Your task to perform on an android device: empty trash in the gmail app Image 0: 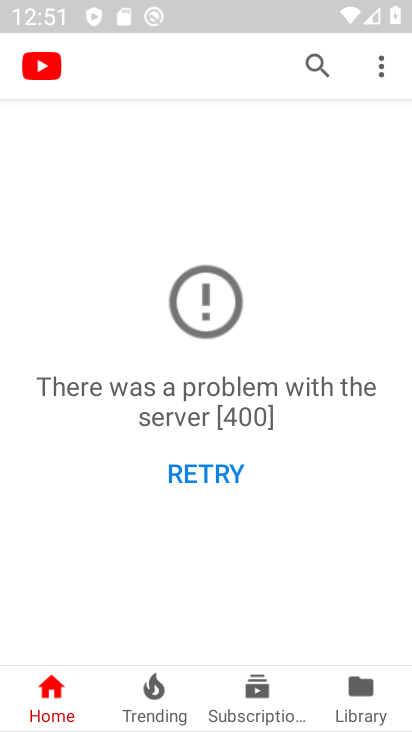
Step 0: press home button
Your task to perform on an android device: empty trash in the gmail app Image 1: 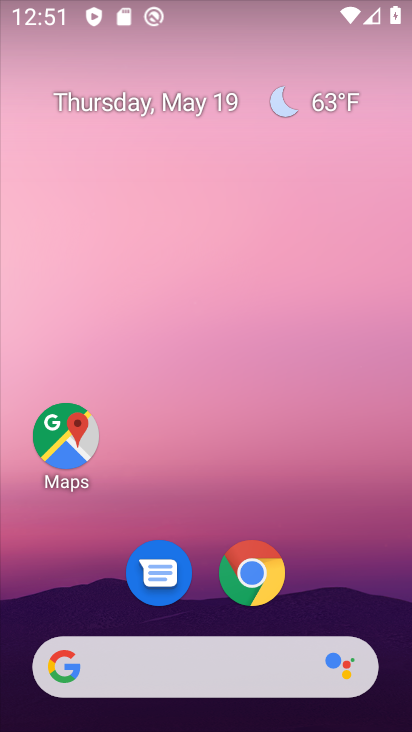
Step 1: drag from (349, 555) to (351, 280)
Your task to perform on an android device: empty trash in the gmail app Image 2: 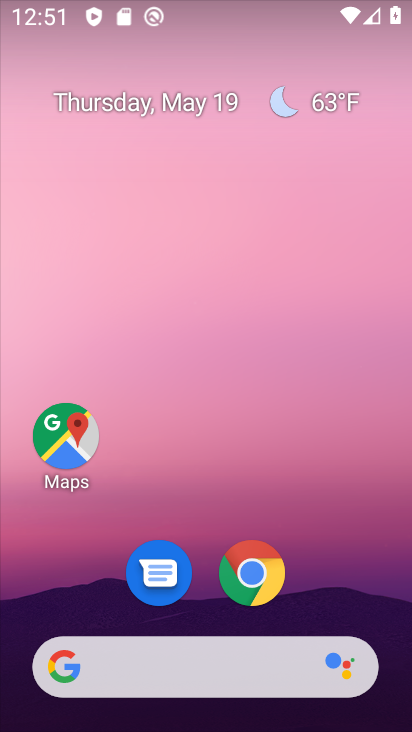
Step 2: drag from (321, 517) to (311, 289)
Your task to perform on an android device: empty trash in the gmail app Image 3: 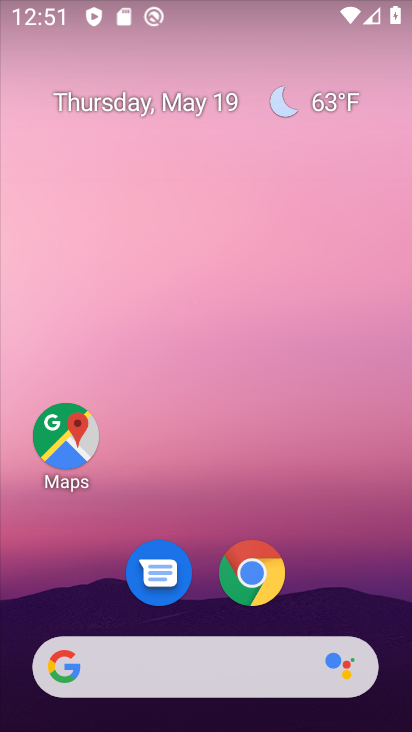
Step 3: click (247, 572)
Your task to perform on an android device: empty trash in the gmail app Image 4: 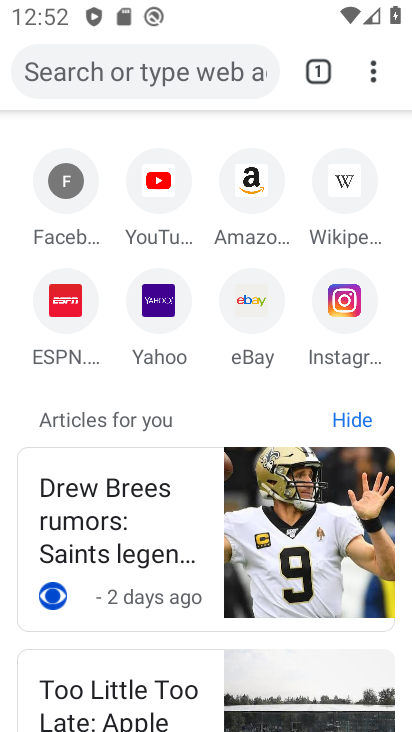
Step 4: click (367, 68)
Your task to perform on an android device: empty trash in the gmail app Image 5: 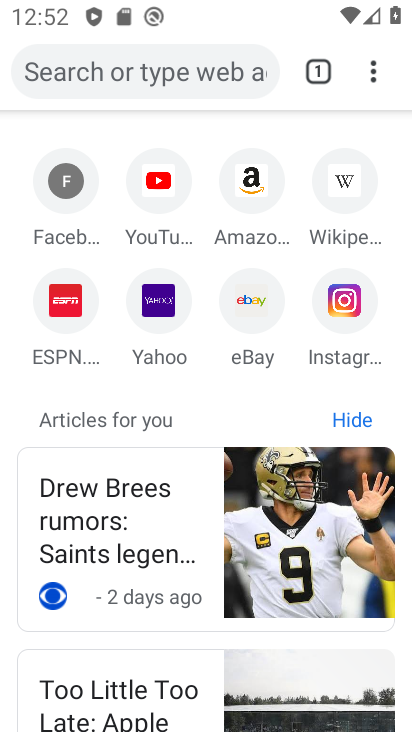
Step 5: click (367, 68)
Your task to perform on an android device: empty trash in the gmail app Image 6: 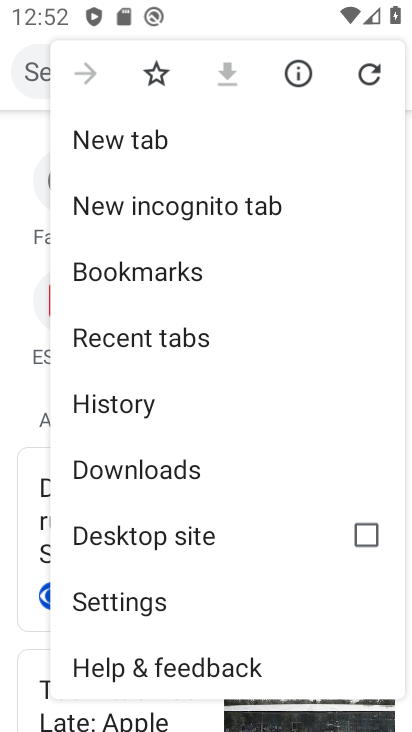
Step 6: press back button
Your task to perform on an android device: empty trash in the gmail app Image 7: 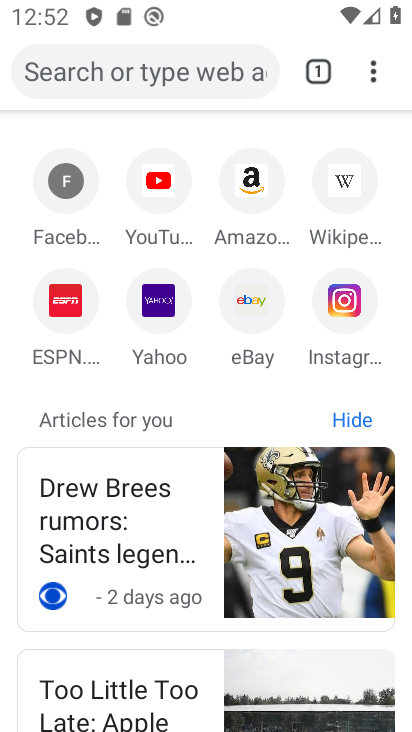
Step 7: press home button
Your task to perform on an android device: empty trash in the gmail app Image 8: 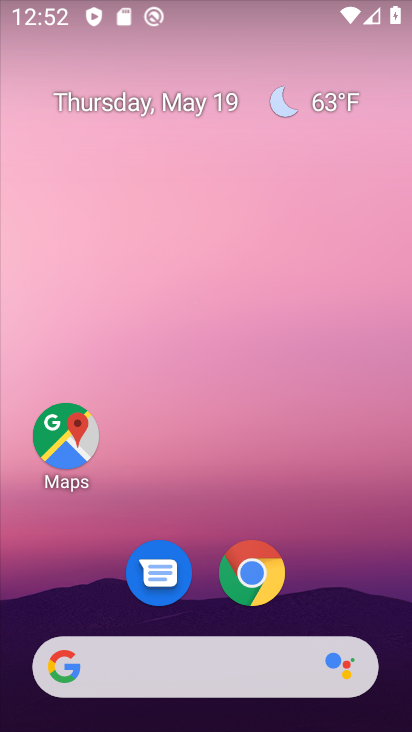
Step 8: drag from (320, 588) to (331, 194)
Your task to perform on an android device: empty trash in the gmail app Image 9: 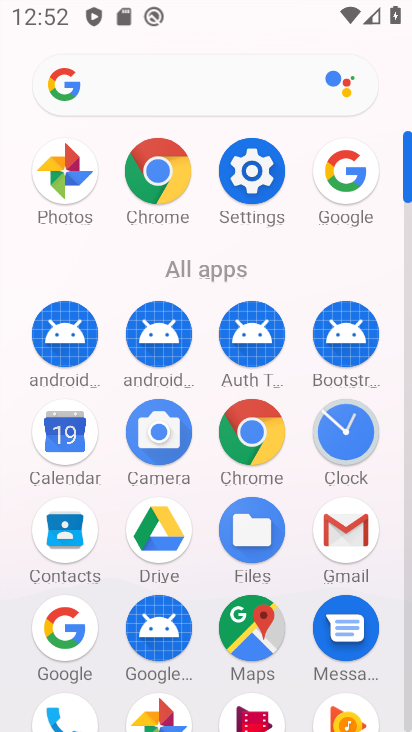
Step 9: click (332, 523)
Your task to perform on an android device: empty trash in the gmail app Image 10: 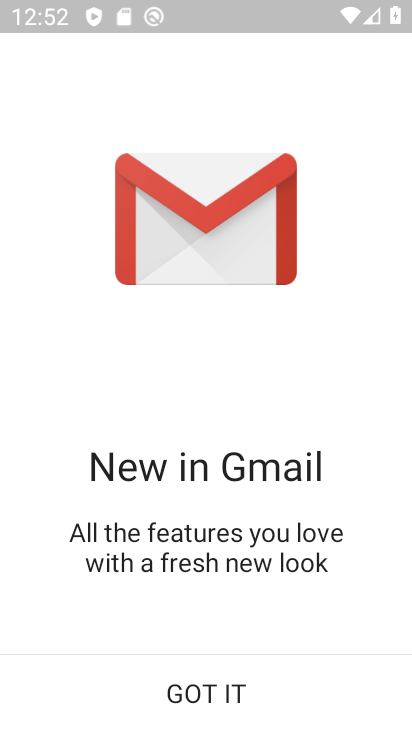
Step 10: click (211, 676)
Your task to perform on an android device: empty trash in the gmail app Image 11: 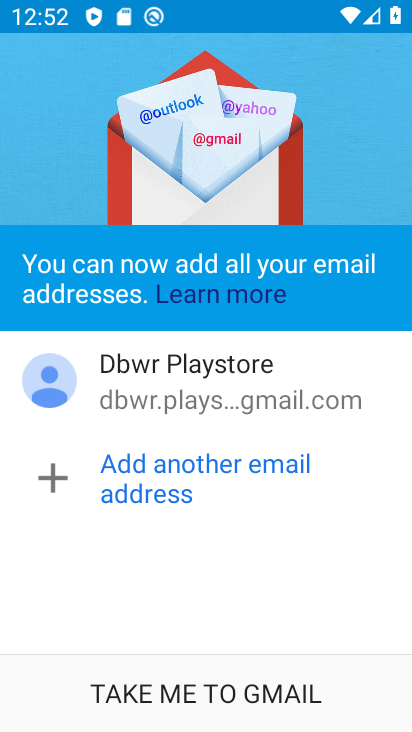
Step 11: click (212, 699)
Your task to perform on an android device: empty trash in the gmail app Image 12: 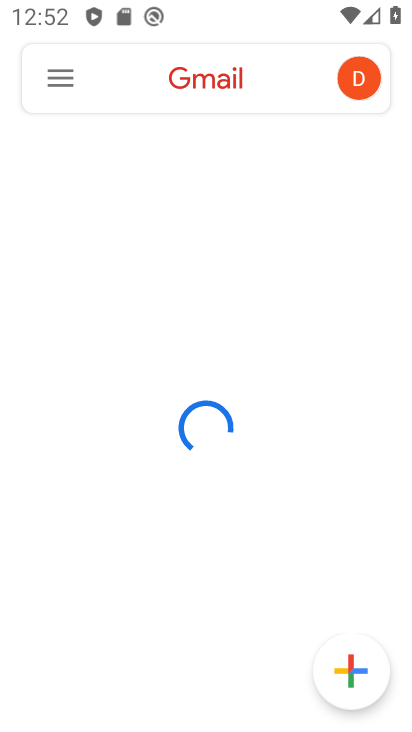
Step 12: click (50, 78)
Your task to perform on an android device: empty trash in the gmail app Image 13: 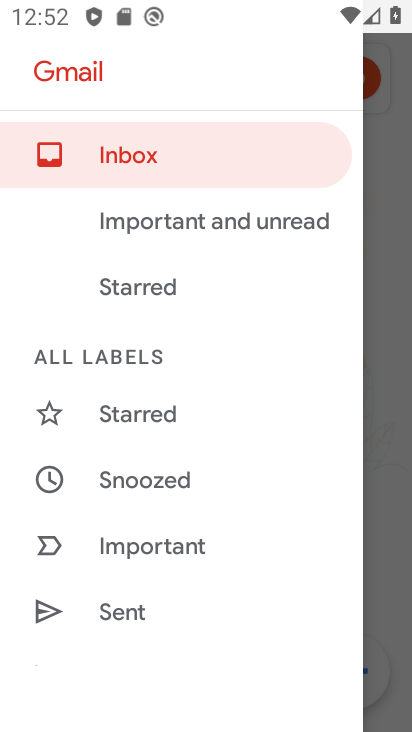
Step 13: drag from (169, 612) to (259, 150)
Your task to perform on an android device: empty trash in the gmail app Image 14: 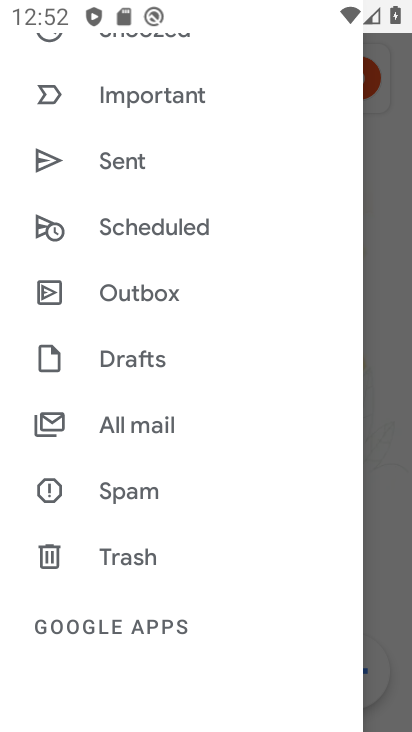
Step 14: click (153, 549)
Your task to perform on an android device: empty trash in the gmail app Image 15: 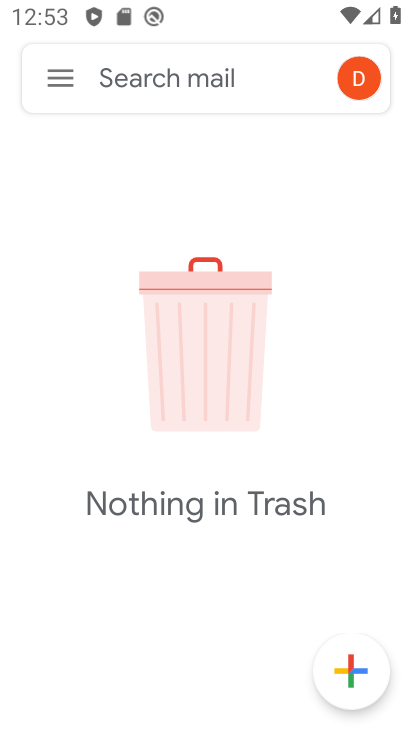
Step 15: task complete